Your task to perform on an android device: see sites visited before in the chrome app Image 0: 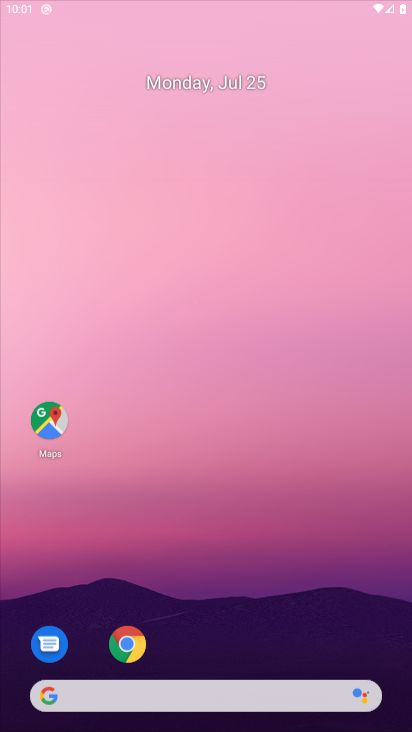
Step 0: drag from (309, 397) to (316, 144)
Your task to perform on an android device: see sites visited before in the chrome app Image 1: 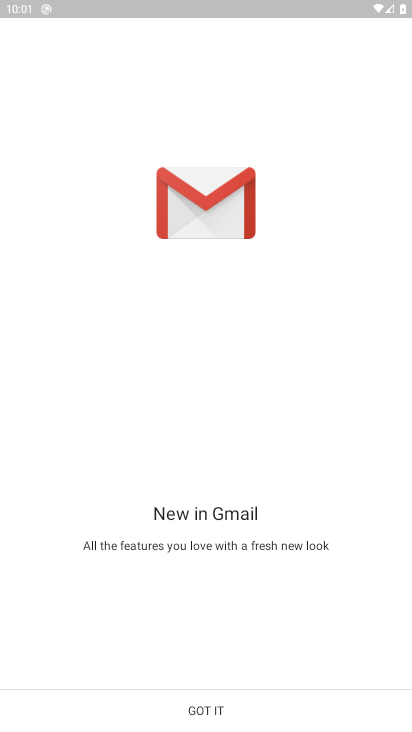
Step 1: press home button
Your task to perform on an android device: see sites visited before in the chrome app Image 2: 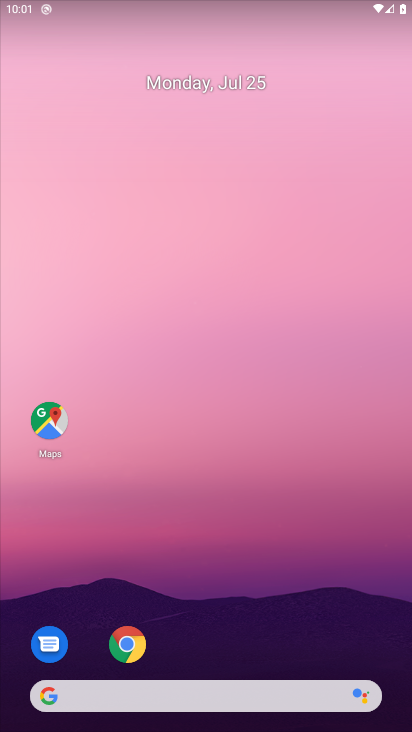
Step 2: drag from (277, 574) to (284, 43)
Your task to perform on an android device: see sites visited before in the chrome app Image 3: 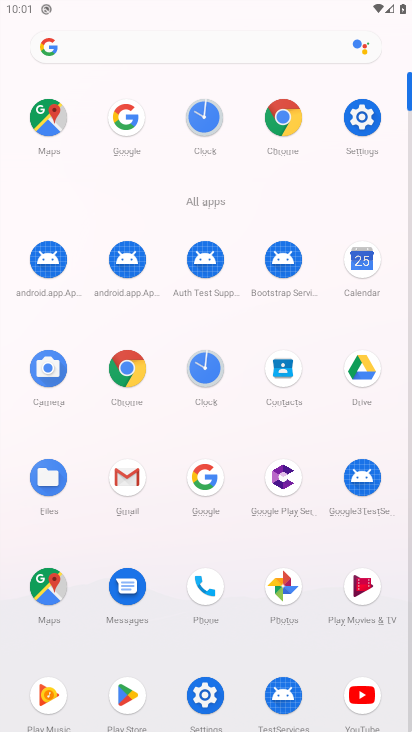
Step 3: click (125, 371)
Your task to perform on an android device: see sites visited before in the chrome app Image 4: 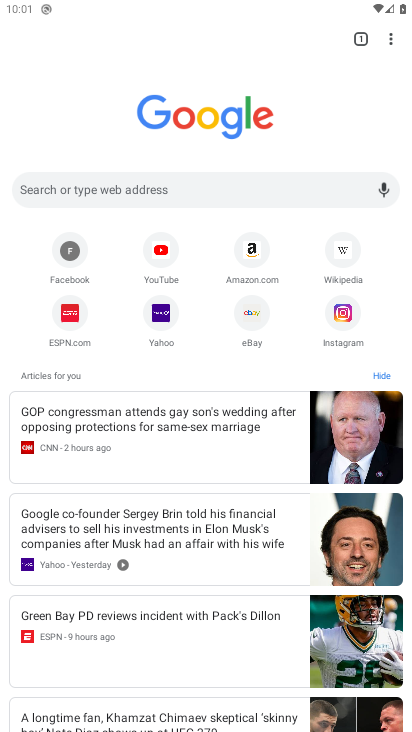
Step 4: drag from (393, 34) to (257, 323)
Your task to perform on an android device: see sites visited before in the chrome app Image 5: 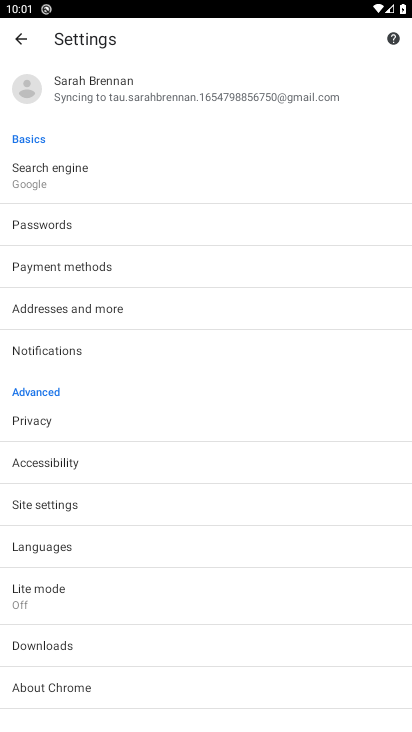
Step 5: click (70, 502)
Your task to perform on an android device: see sites visited before in the chrome app Image 6: 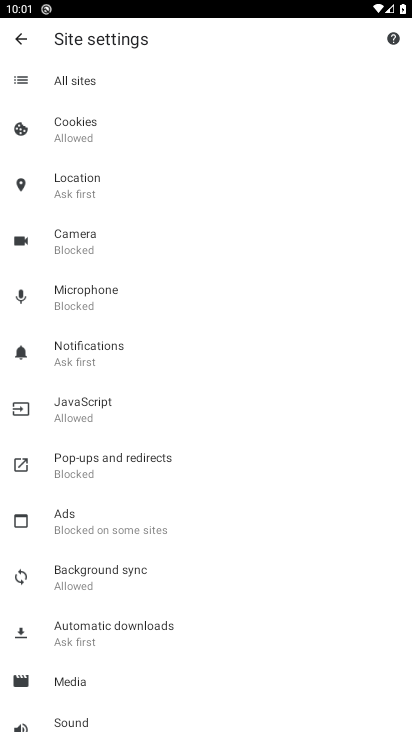
Step 6: click (71, 78)
Your task to perform on an android device: see sites visited before in the chrome app Image 7: 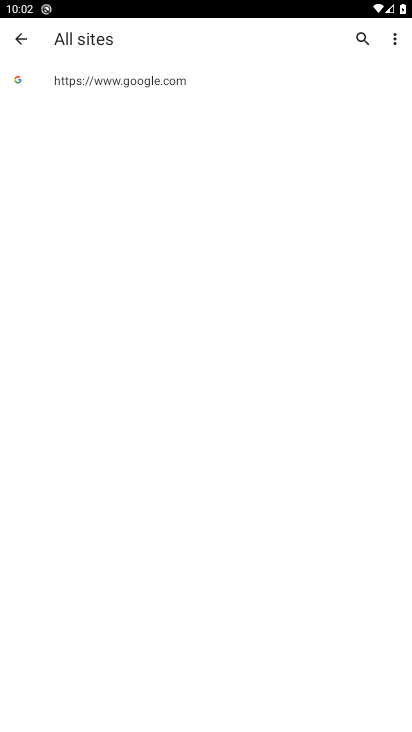
Step 7: task complete